Your task to perform on an android device: change the clock display to show seconds Image 0: 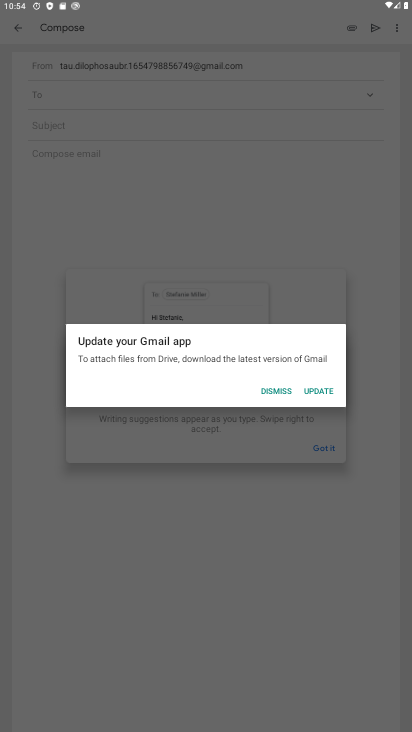
Step 0: press home button
Your task to perform on an android device: change the clock display to show seconds Image 1: 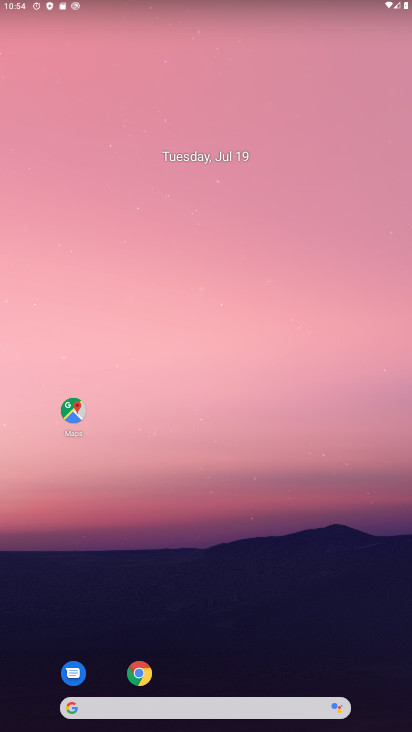
Step 1: drag from (224, 645) to (347, 82)
Your task to perform on an android device: change the clock display to show seconds Image 2: 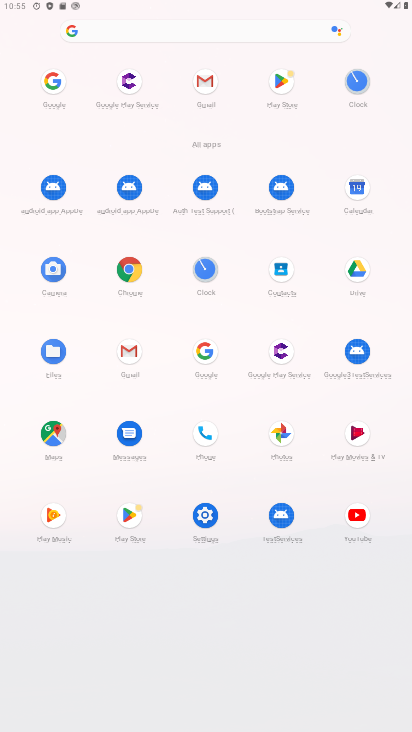
Step 2: click (204, 269)
Your task to perform on an android device: change the clock display to show seconds Image 3: 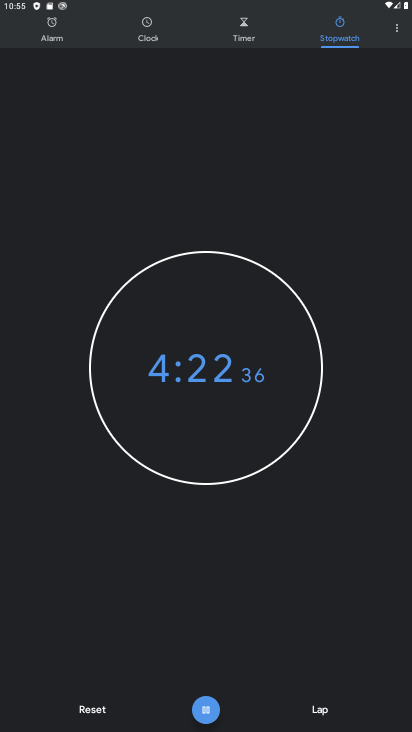
Step 3: click (401, 29)
Your task to perform on an android device: change the clock display to show seconds Image 4: 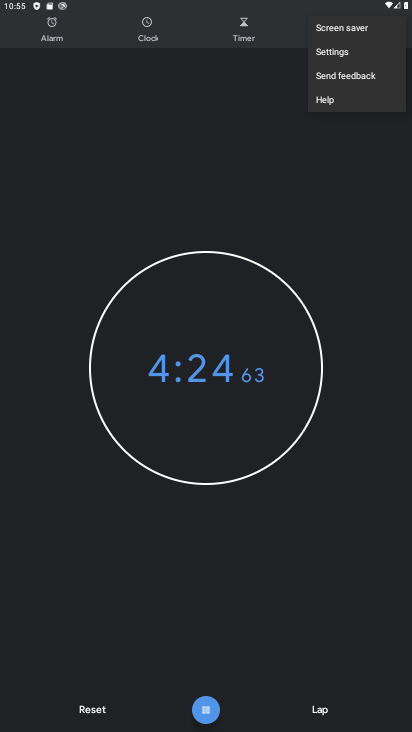
Step 4: click (389, 49)
Your task to perform on an android device: change the clock display to show seconds Image 5: 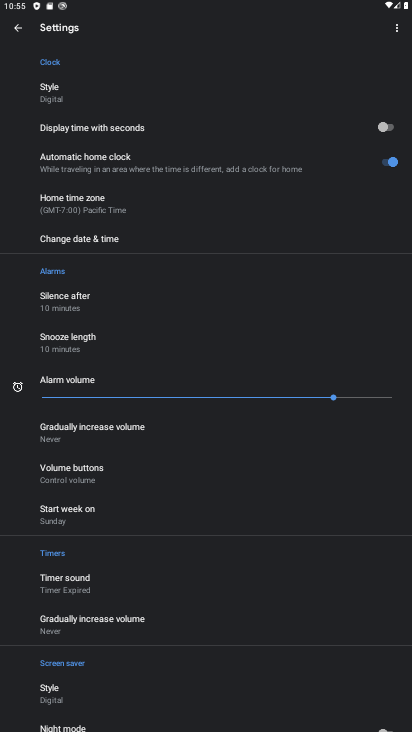
Step 5: click (400, 118)
Your task to perform on an android device: change the clock display to show seconds Image 6: 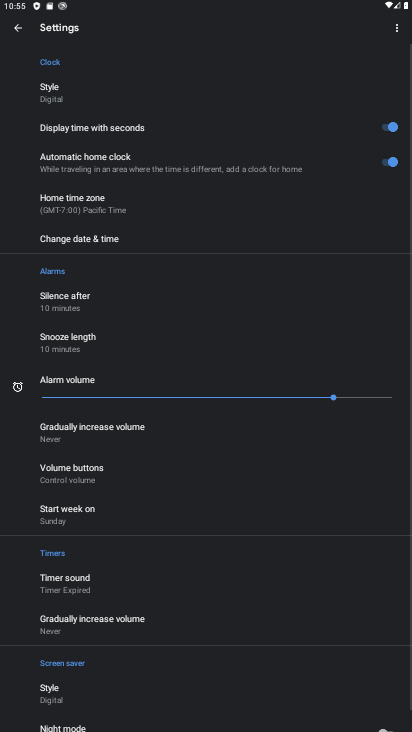
Step 6: task complete